Your task to perform on an android device: Go to eBay Image 0: 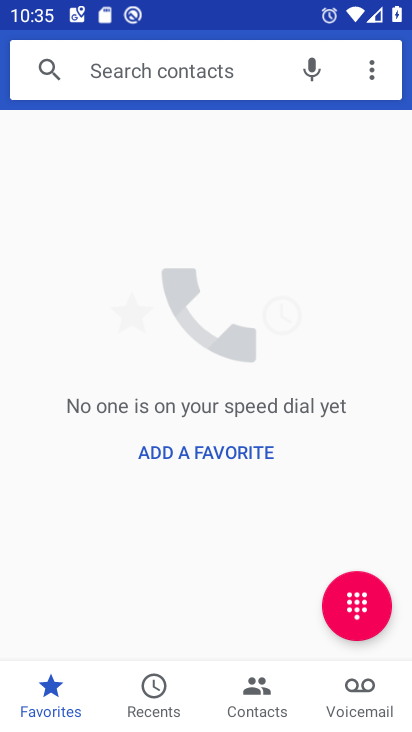
Step 0: press home button
Your task to perform on an android device: Go to eBay Image 1: 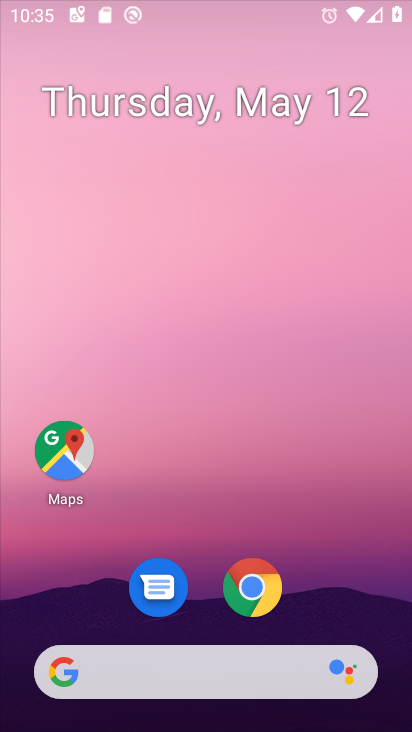
Step 1: drag from (390, 627) to (253, 82)
Your task to perform on an android device: Go to eBay Image 2: 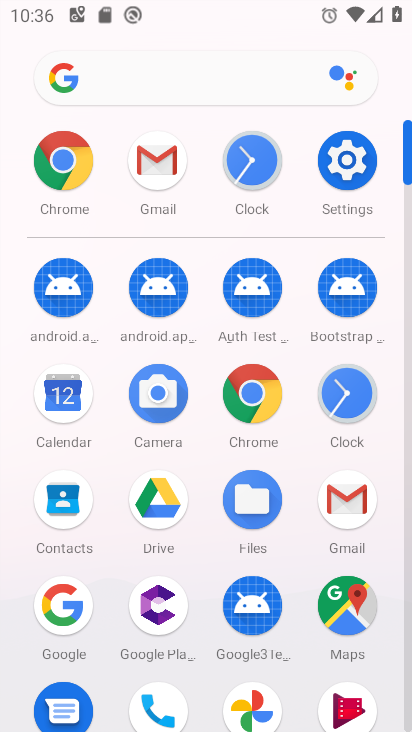
Step 2: click (51, 174)
Your task to perform on an android device: Go to eBay Image 3: 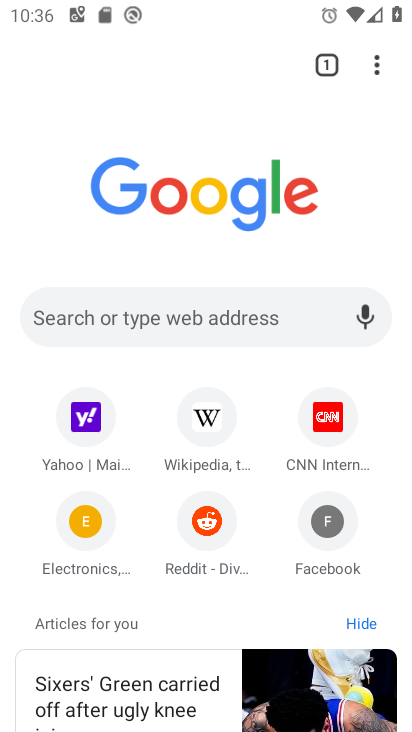
Step 3: click (229, 319)
Your task to perform on an android device: Go to eBay Image 4: 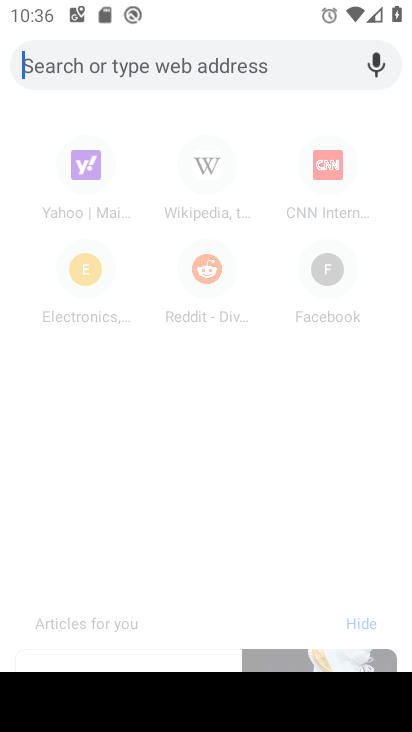
Step 4: type "ebay"
Your task to perform on an android device: Go to eBay Image 5: 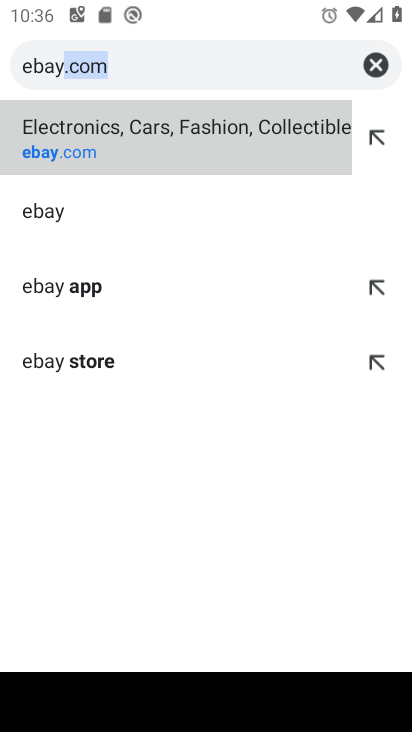
Step 5: click (154, 139)
Your task to perform on an android device: Go to eBay Image 6: 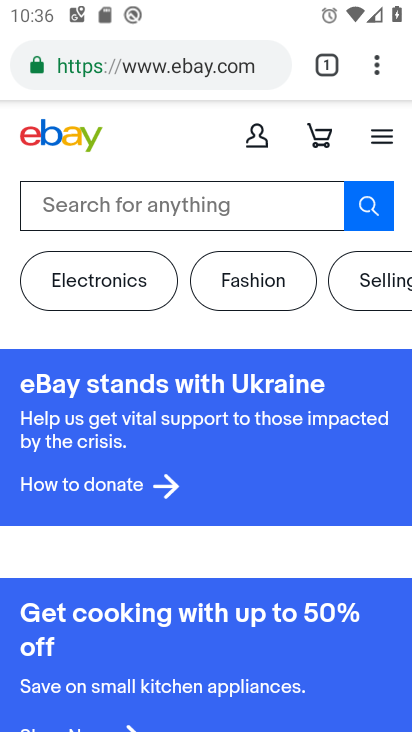
Step 6: task complete